Your task to perform on an android device: Go to CNN.com Image 0: 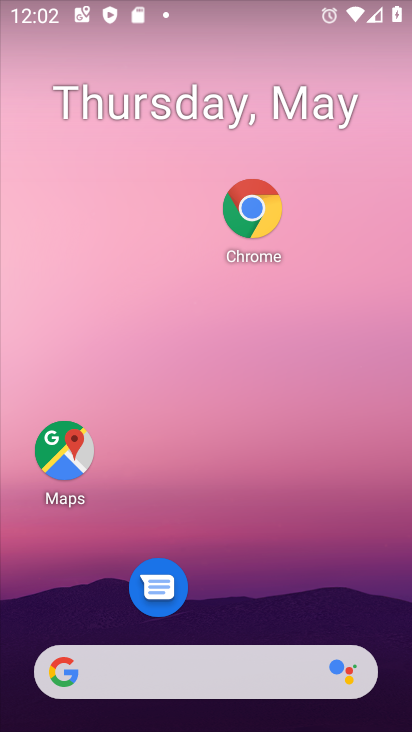
Step 0: click (239, 205)
Your task to perform on an android device: Go to CNN.com Image 1: 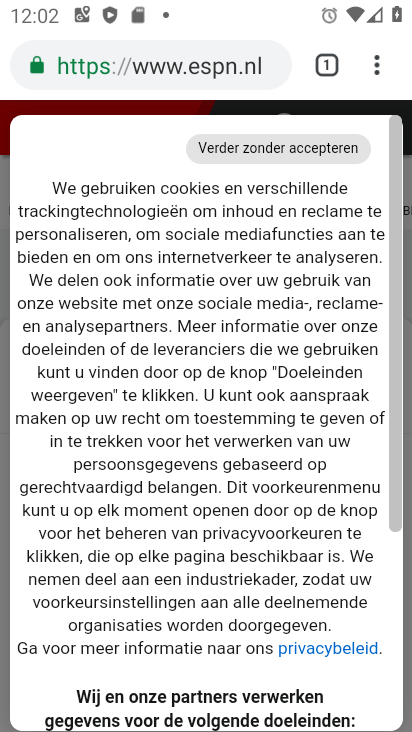
Step 1: click (230, 77)
Your task to perform on an android device: Go to CNN.com Image 2: 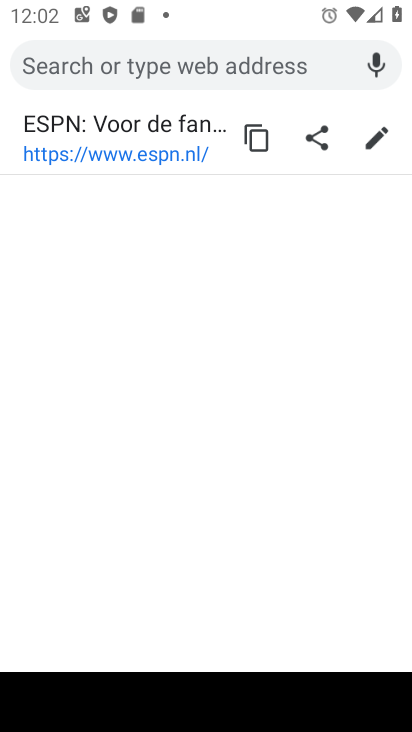
Step 2: type "www.cnn.com"
Your task to perform on an android device: Go to CNN.com Image 3: 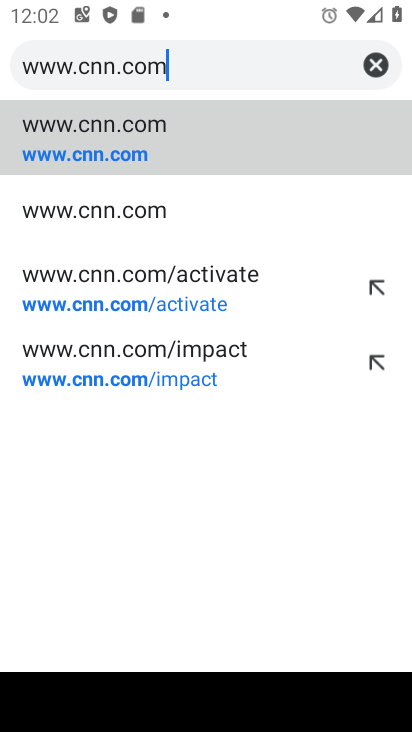
Step 3: click (90, 144)
Your task to perform on an android device: Go to CNN.com Image 4: 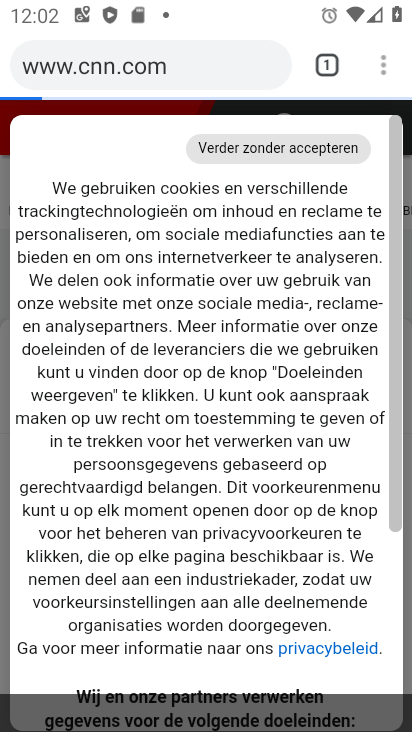
Step 4: click (88, 144)
Your task to perform on an android device: Go to CNN.com Image 5: 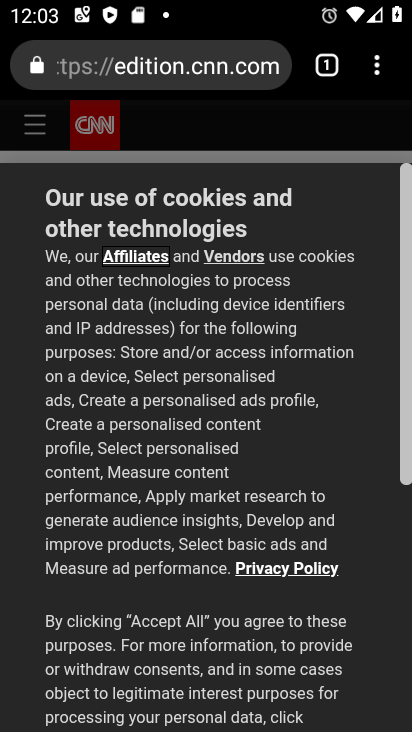
Step 5: task complete